Your task to perform on an android device: check data usage Image 0: 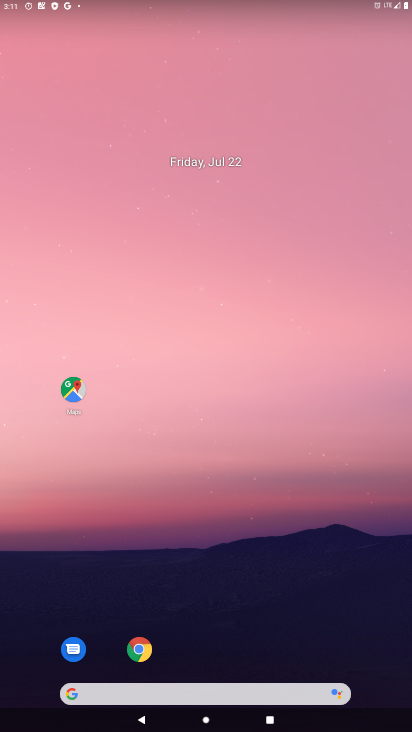
Step 0: drag from (273, 601) to (258, 73)
Your task to perform on an android device: check data usage Image 1: 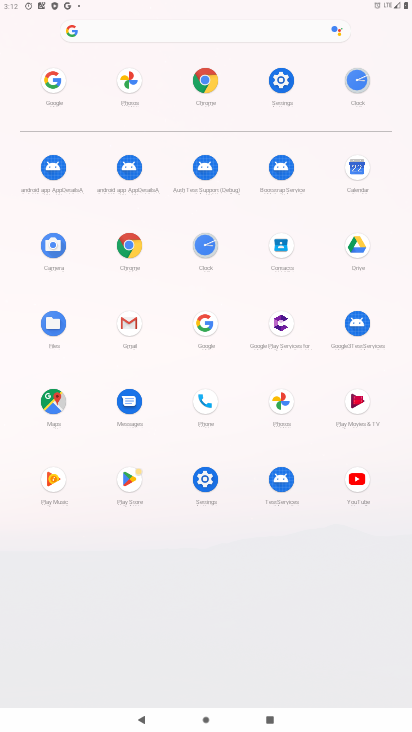
Step 1: click (290, 82)
Your task to perform on an android device: check data usage Image 2: 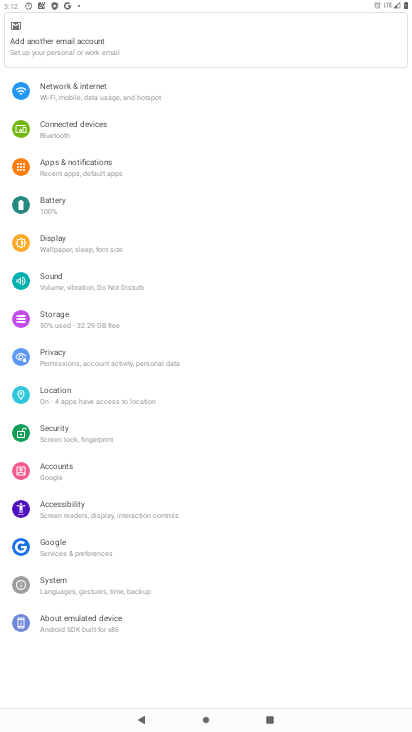
Step 2: click (77, 95)
Your task to perform on an android device: check data usage Image 3: 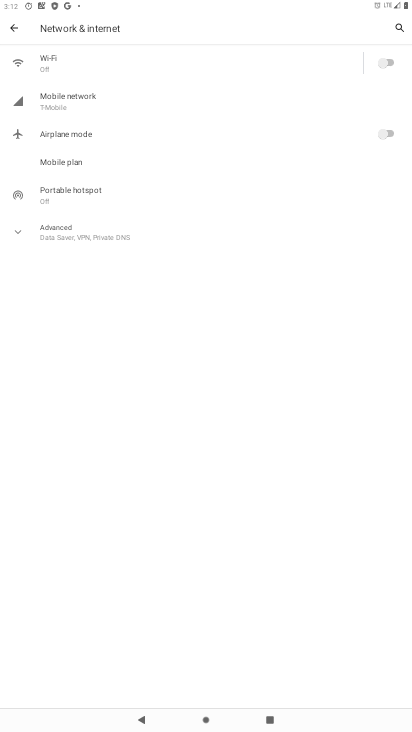
Step 3: click (50, 94)
Your task to perform on an android device: check data usage Image 4: 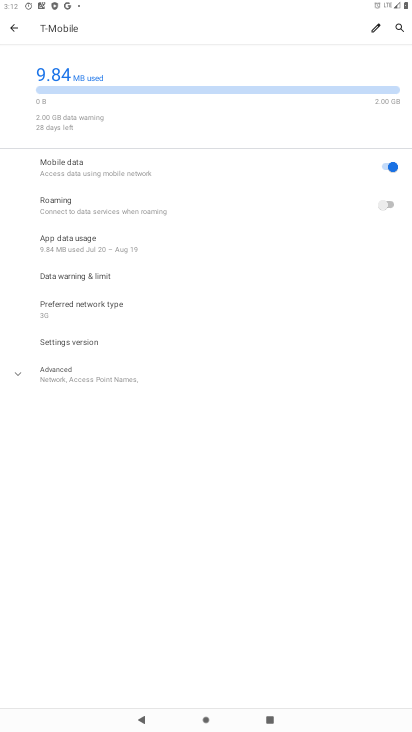
Step 4: task complete